Your task to perform on an android device: open a new tab in the chrome app Image 0: 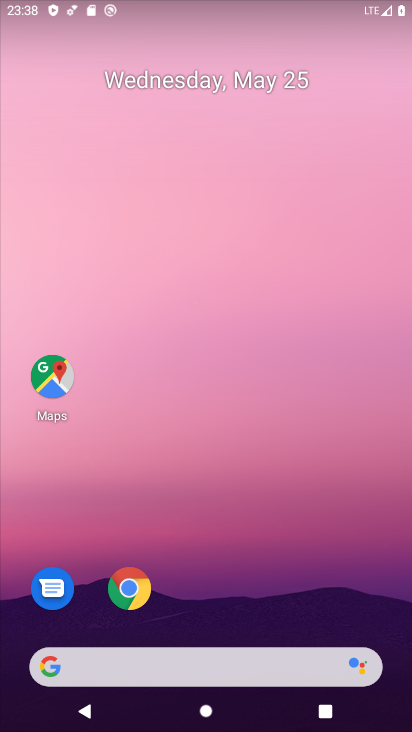
Step 0: click (146, 583)
Your task to perform on an android device: open a new tab in the chrome app Image 1: 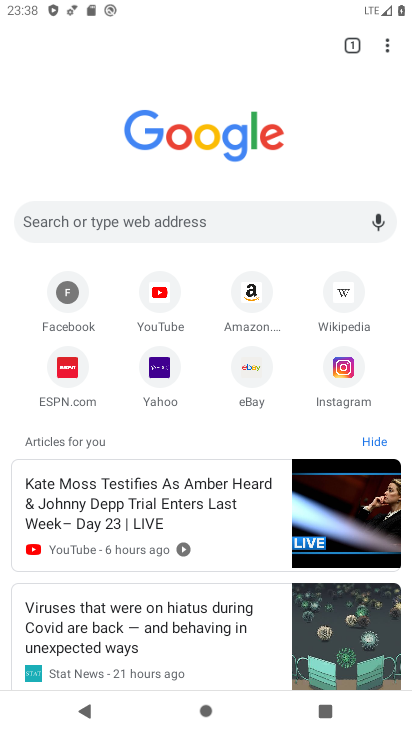
Step 1: click (388, 39)
Your task to perform on an android device: open a new tab in the chrome app Image 2: 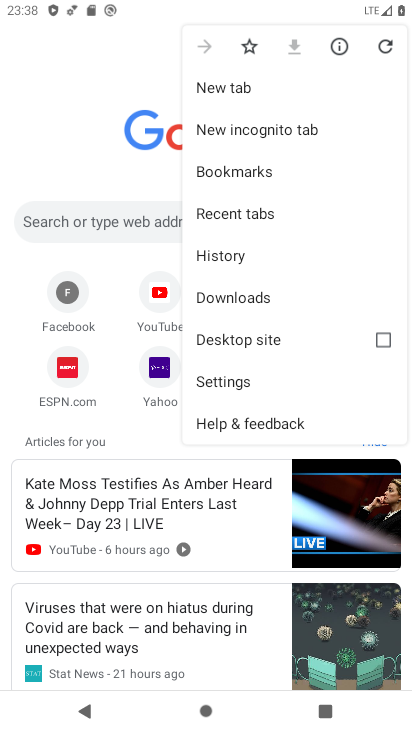
Step 2: click (217, 87)
Your task to perform on an android device: open a new tab in the chrome app Image 3: 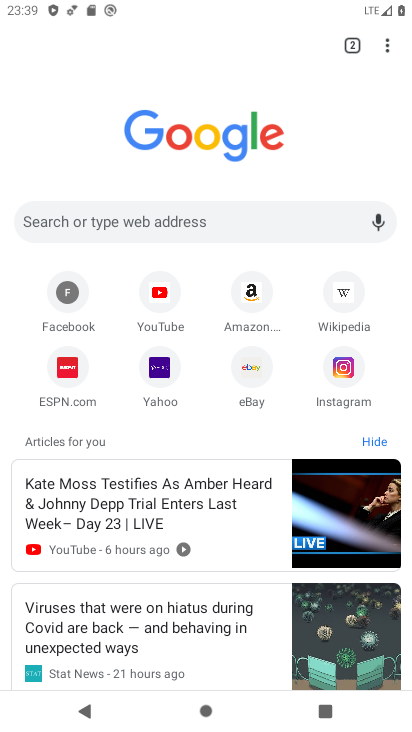
Step 3: task complete